Your task to perform on an android device: delete browsing data in the chrome app Image 0: 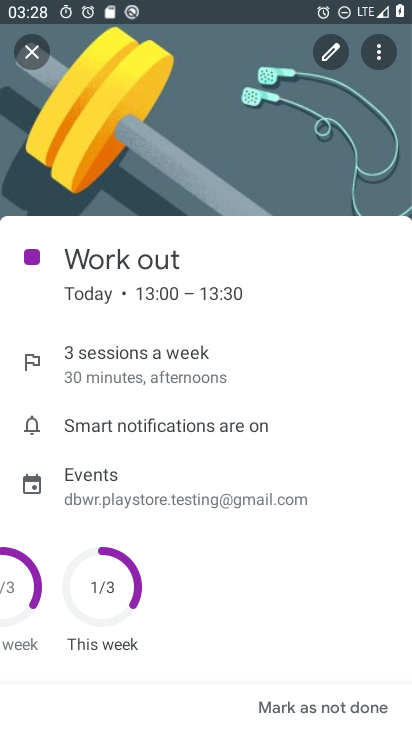
Step 0: press home button
Your task to perform on an android device: delete browsing data in the chrome app Image 1: 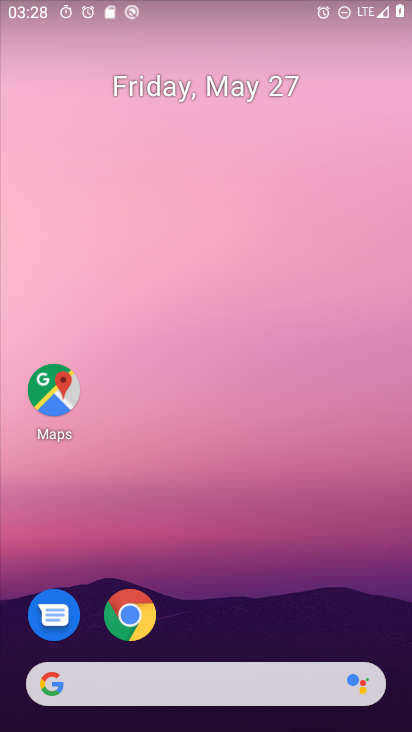
Step 1: drag from (319, 616) to (336, 281)
Your task to perform on an android device: delete browsing data in the chrome app Image 2: 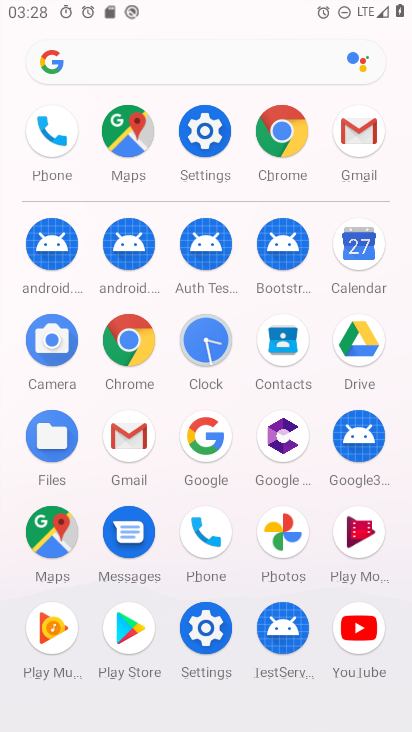
Step 2: click (144, 348)
Your task to perform on an android device: delete browsing data in the chrome app Image 3: 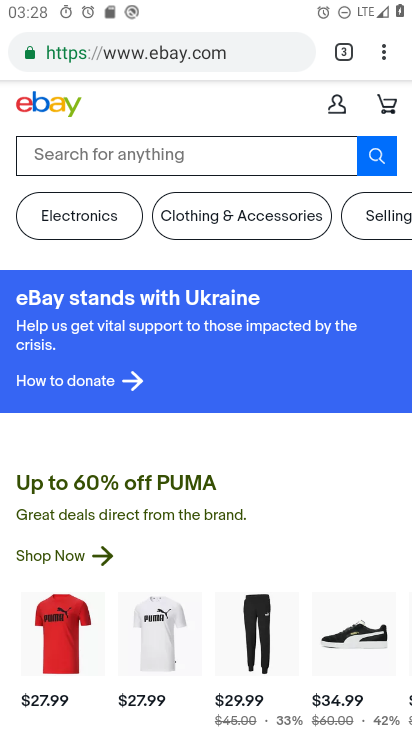
Step 3: click (388, 60)
Your task to perform on an android device: delete browsing data in the chrome app Image 4: 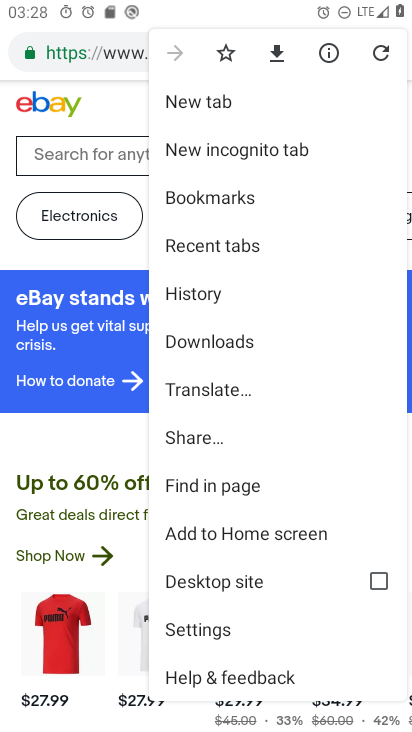
Step 4: click (225, 636)
Your task to perform on an android device: delete browsing data in the chrome app Image 5: 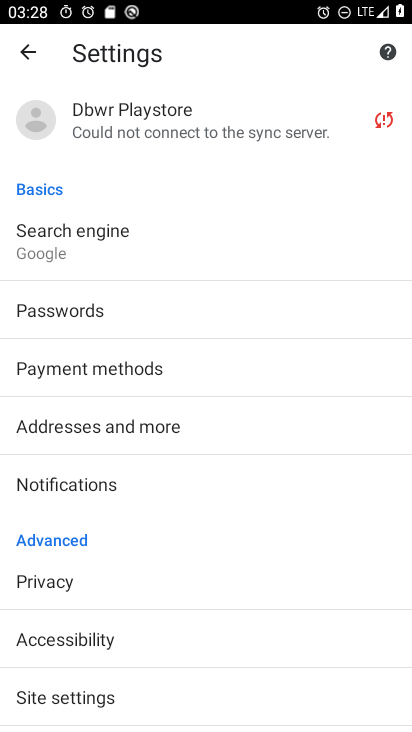
Step 5: drag from (261, 538) to (279, 470)
Your task to perform on an android device: delete browsing data in the chrome app Image 6: 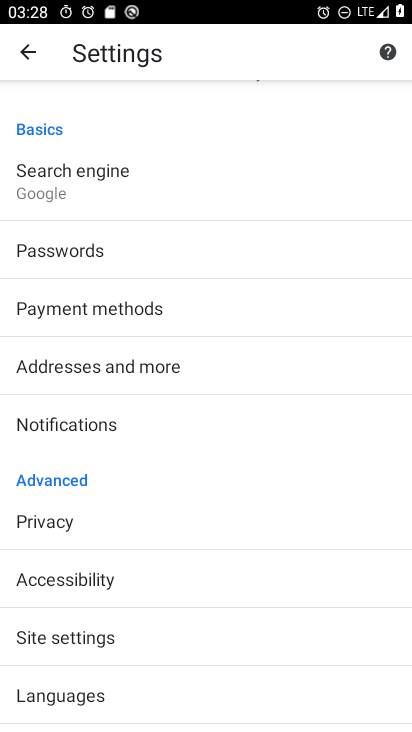
Step 6: drag from (313, 546) to (314, 395)
Your task to perform on an android device: delete browsing data in the chrome app Image 7: 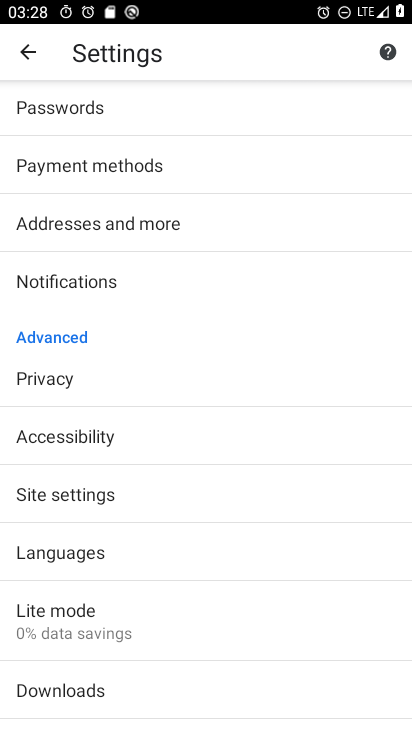
Step 7: drag from (320, 560) to (325, 446)
Your task to perform on an android device: delete browsing data in the chrome app Image 8: 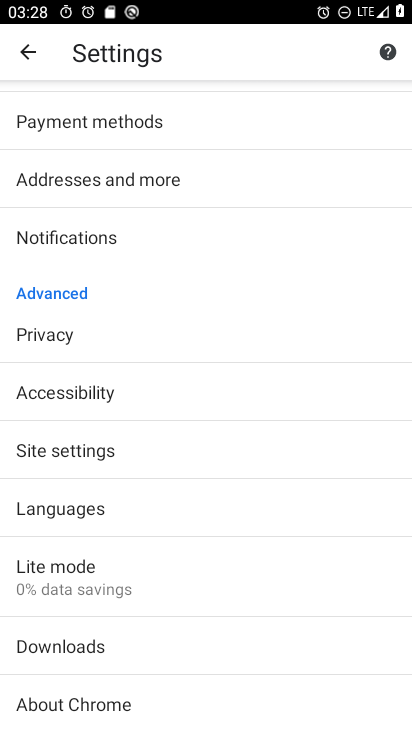
Step 8: drag from (325, 598) to (329, 464)
Your task to perform on an android device: delete browsing data in the chrome app Image 9: 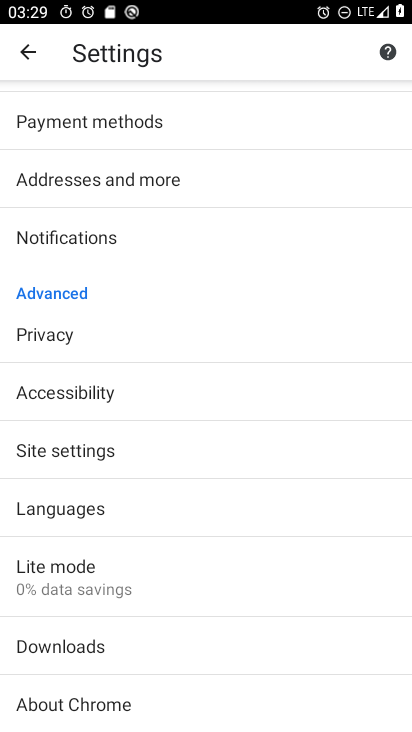
Step 9: click (245, 346)
Your task to perform on an android device: delete browsing data in the chrome app Image 10: 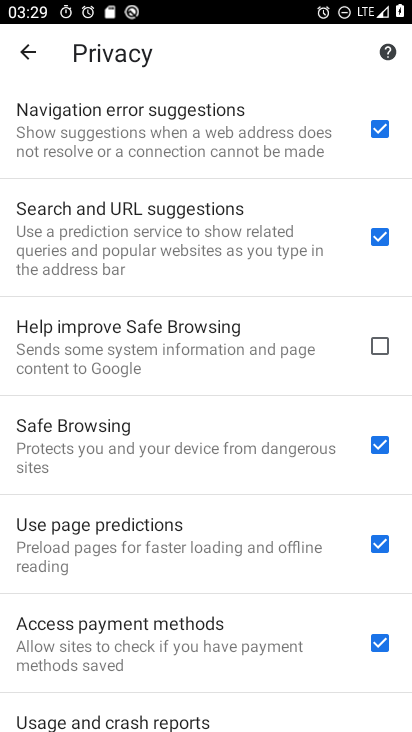
Step 10: drag from (257, 500) to (267, 405)
Your task to perform on an android device: delete browsing data in the chrome app Image 11: 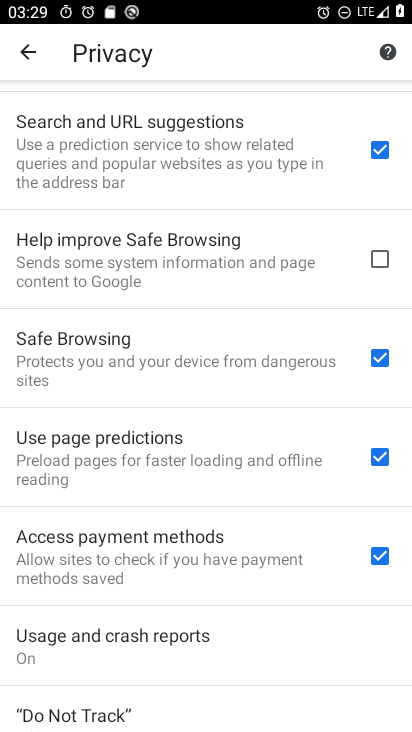
Step 11: drag from (272, 600) to (291, 497)
Your task to perform on an android device: delete browsing data in the chrome app Image 12: 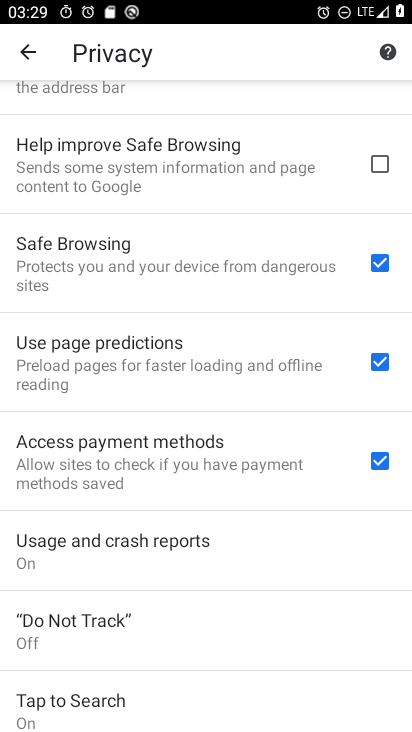
Step 12: drag from (274, 607) to (284, 509)
Your task to perform on an android device: delete browsing data in the chrome app Image 13: 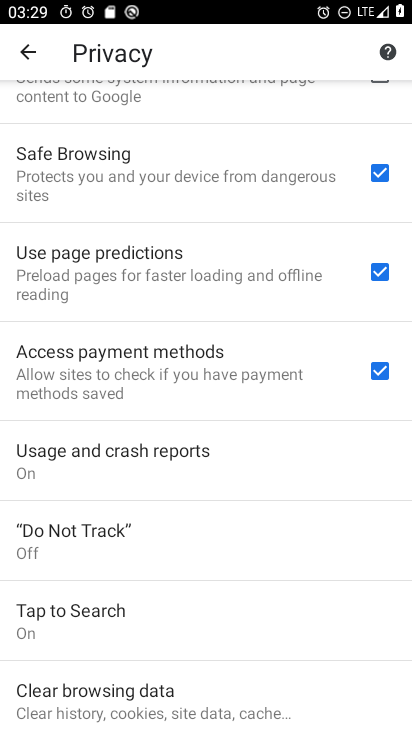
Step 13: drag from (266, 614) to (280, 516)
Your task to perform on an android device: delete browsing data in the chrome app Image 14: 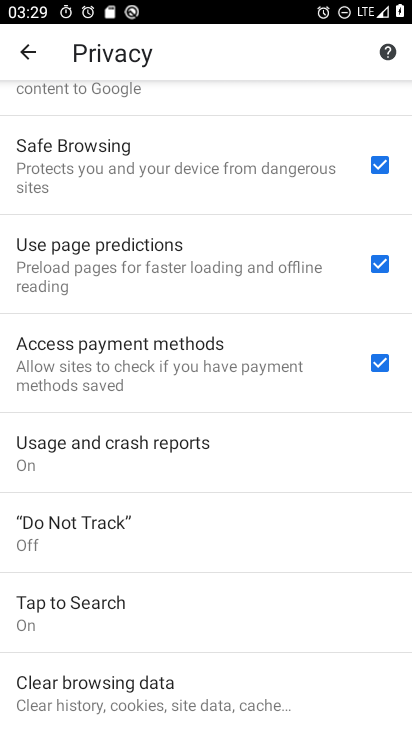
Step 14: click (233, 676)
Your task to perform on an android device: delete browsing data in the chrome app Image 15: 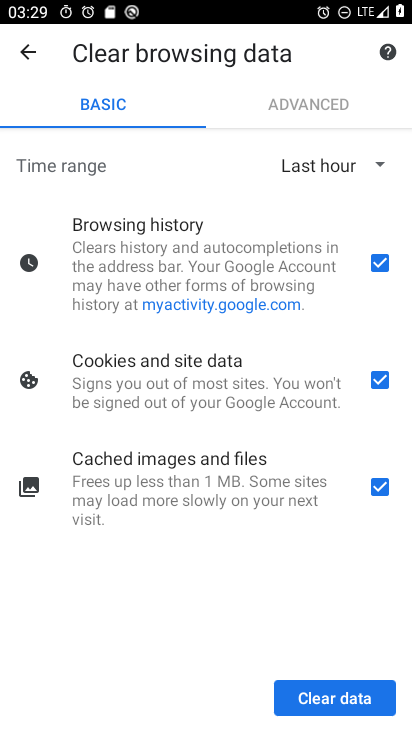
Step 15: click (320, 690)
Your task to perform on an android device: delete browsing data in the chrome app Image 16: 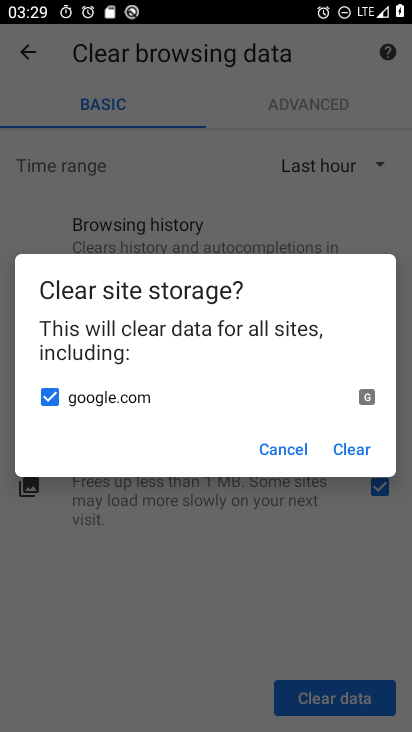
Step 16: click (356, 454)
Your task to perform on an android device: delete browsing data in the chrome app Image 17: 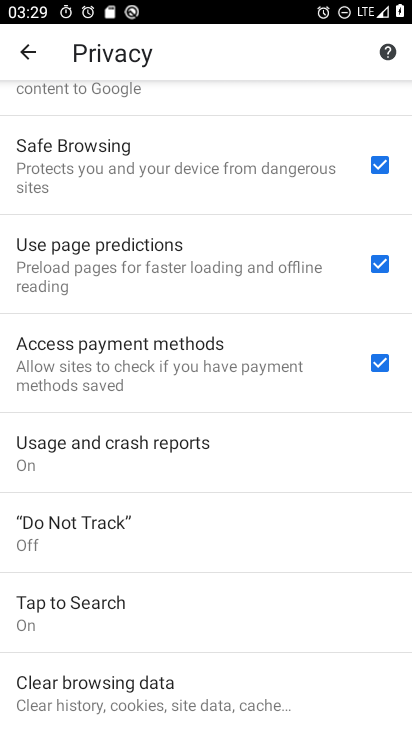
Step 17: task complete